Your task to perform on an android device: set default search engine in the chrome app Image 0: 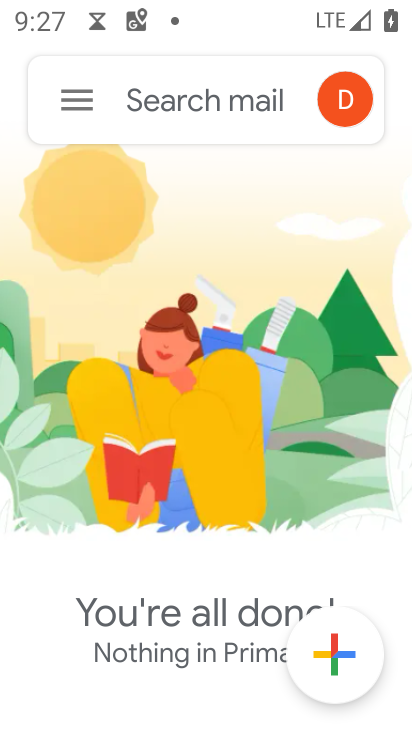
Step 0: drag from (345, 675) to (187, 144)
Your task to perform on an android device: set default search engine in the chrome app Image 1: 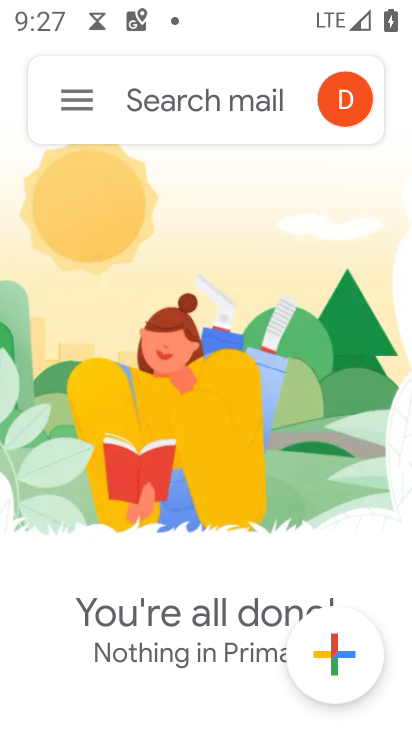
Step 1: press back button
Your task to perform on an android device: set default search engine in the chrome app Image 2: 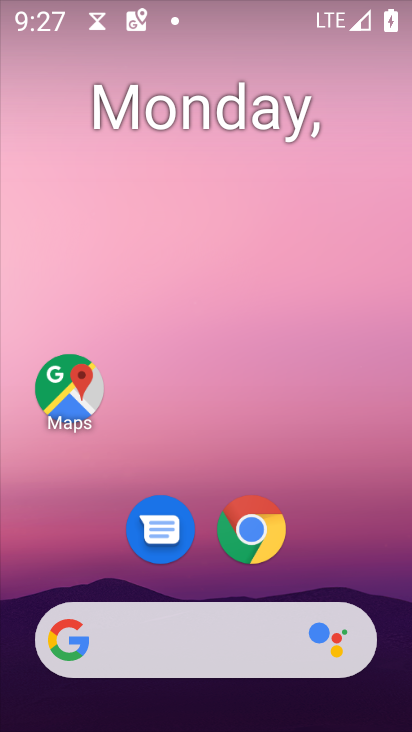
Step 2: drag from (306, 598) to (26, 18)
Your task to perform on an android device: set default search engine in the chrome app Image 3: 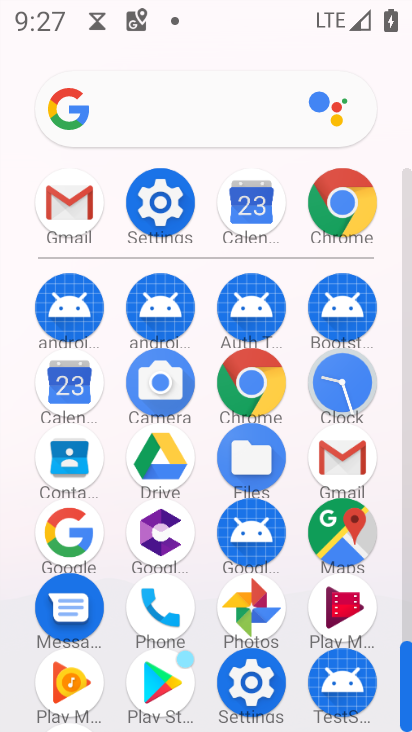
Step 3: click (341, 207)
Your task to perform on an android device: set default search engine in the chrome app Image 4: 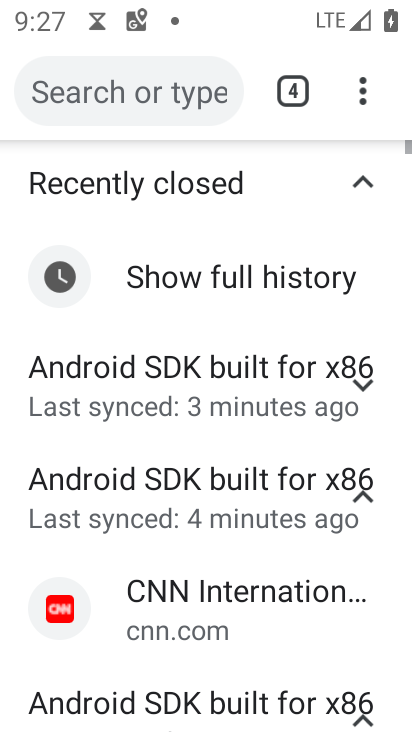
Step 4: drag from (362, 97) to (93, 555)
Your task to perform on an android device: set default search engine in the chrome app Image 5: 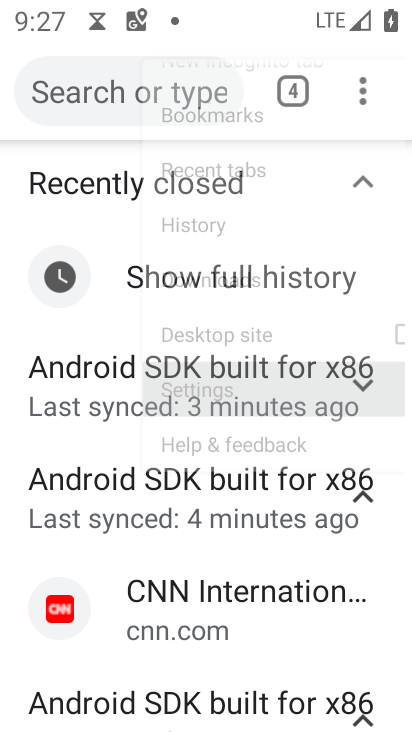
Step 5: click (104, 547)
Your task to perform on an android device: set default search engine in the chrome app Image 6: 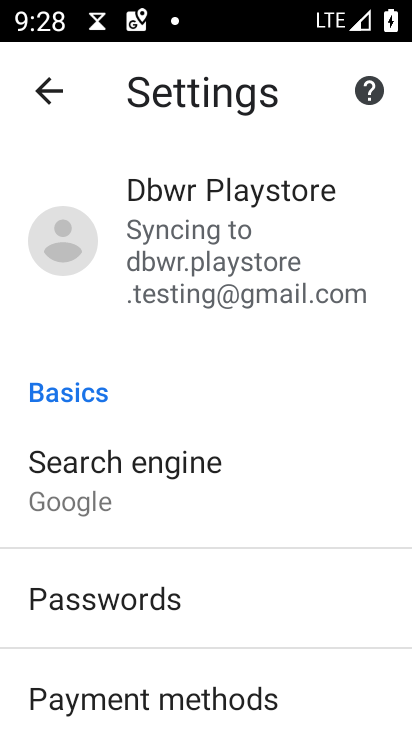
Step 6: drag from (199, 555) to (153, 201)
Your task to perform on an android device: set default search engine in the chrome app Image 7: 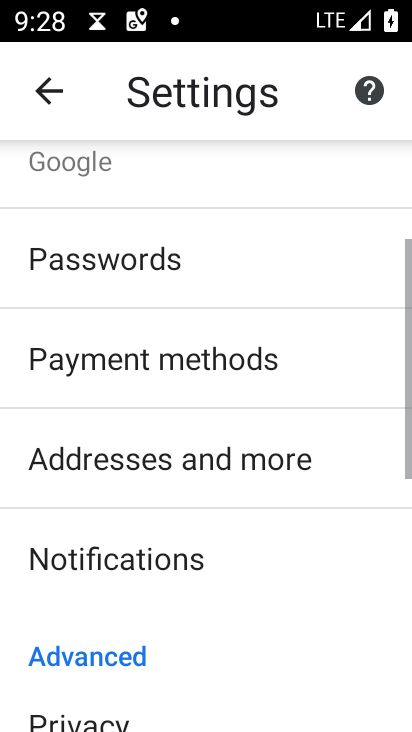
Step 7: drag from (166, 462) to (195, 222)
Your task to perform on an android device: set default search engine in the chrome app Image 8: 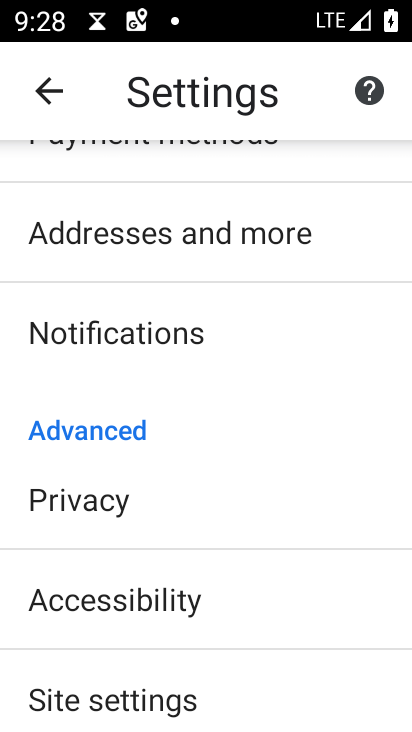
Step 8: drag from (155, 569) to (134, 333)
Your task to perform on an android device: set default search engine in the chrome app Image 9: 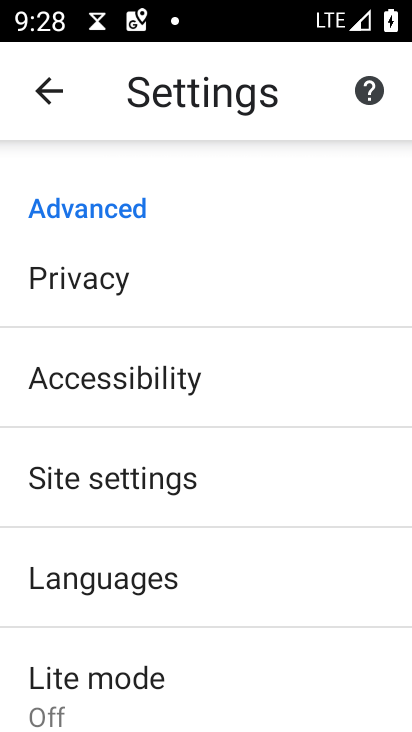
Step 9: click (107, 475)
Your task to perform on an android device: set default search engine in the chrome app Image 10: 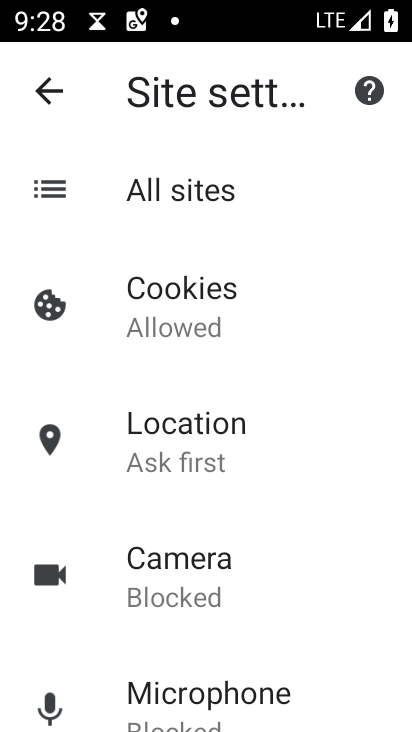
Step 10: drag from (212, 543) to (186, 125)
Your task to perform on an android device: set default search engine in the chrome app Image 11: 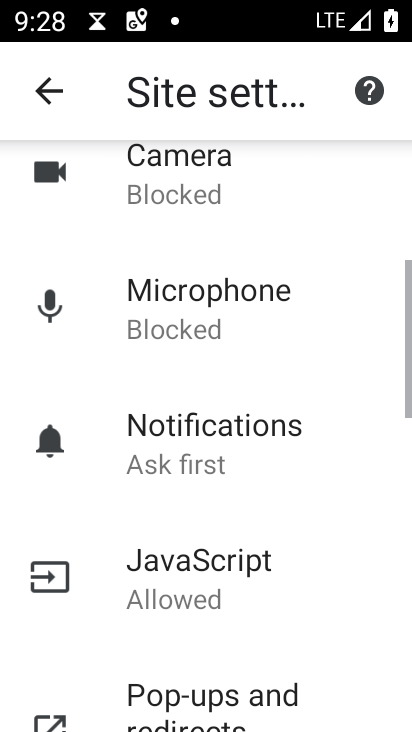
Step 11: drag from (250, 438) to (205, 174)
Your task to perform on an android device: set default search engine in the chrome app Image 12: 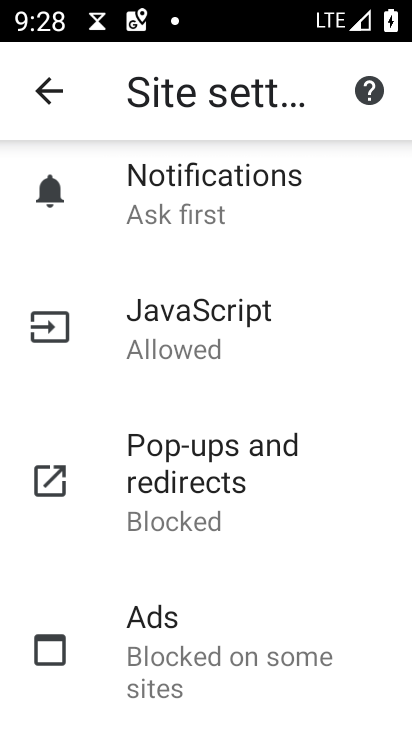
Step 12: drag from (164, 433) to (217, 573)
Your task to perform on an android device: set default search engine in the chrome app Image 13: 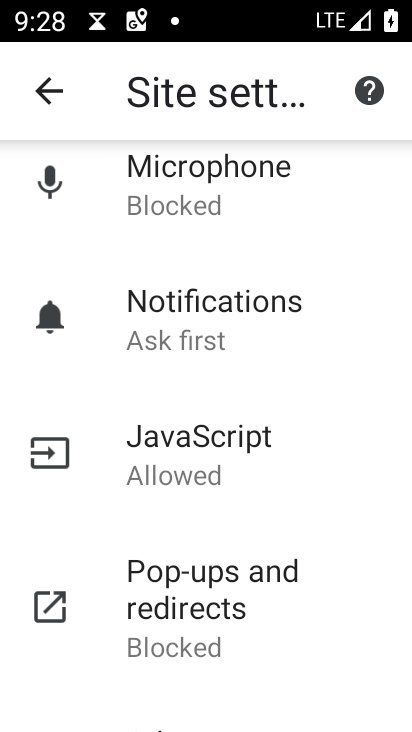
Step 13: click (29, 95)
Your task to perform on an android device: set default search engine in the chrome app Image 14: 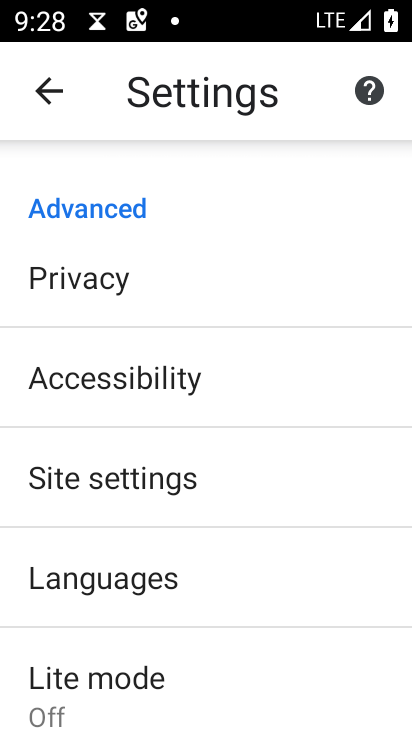
Step 14: drag from (127, 342) to (169, 611)
Your task to perform on an android device: set default search engine in the chrome app Image 15: 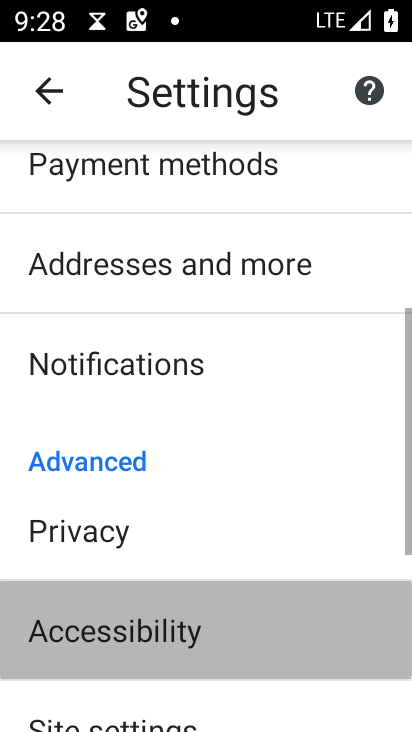
Step 15: drag from (123, 263) to (159, 499)
Your task to perform on an android device: set default search engine in the chrome app Image 16: 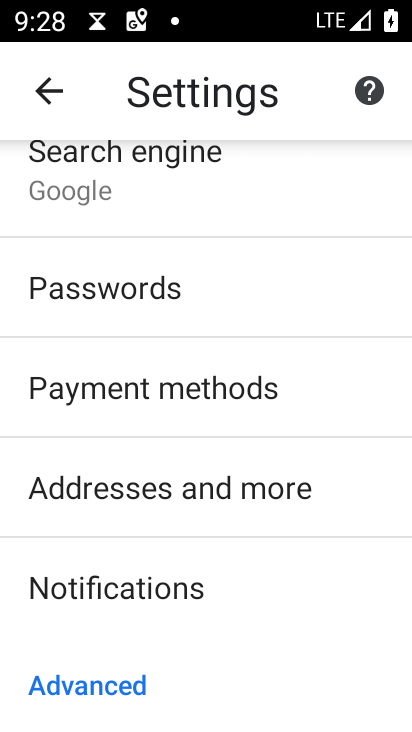
Step 16: drag from (108, 294) to (154, 535)
Your task to perform on an android device: set default search engine in the chrome app Image 17: 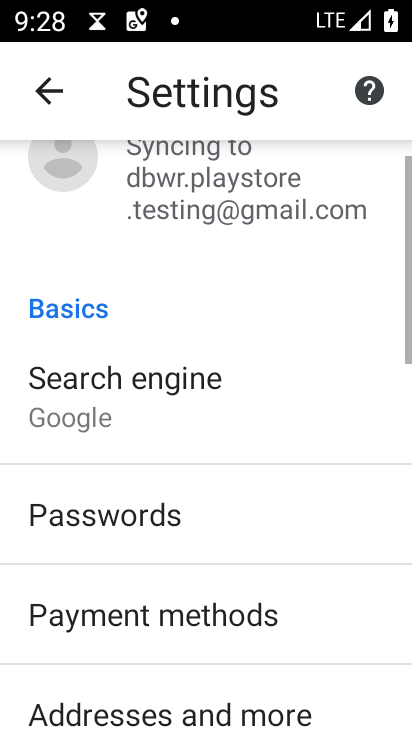
Step 17: drag from (185, 403) to (206, 551)
Your task to perform on an android device: set default search engine in the chrome app Image 18: 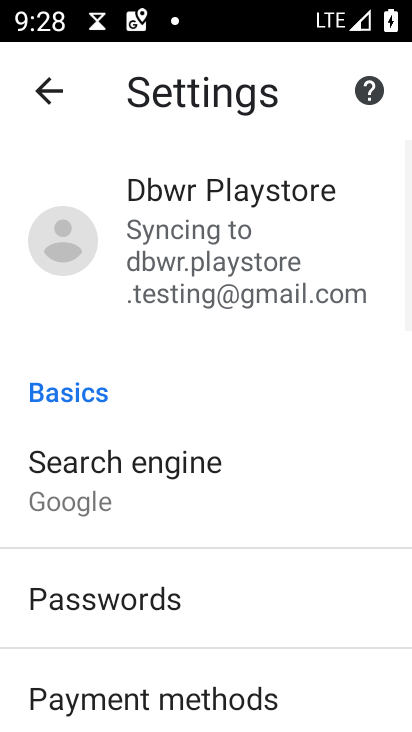
Step 18: click (73, 390)
Your task to perform on an android device: set default search engine in the chrome app Image 19: 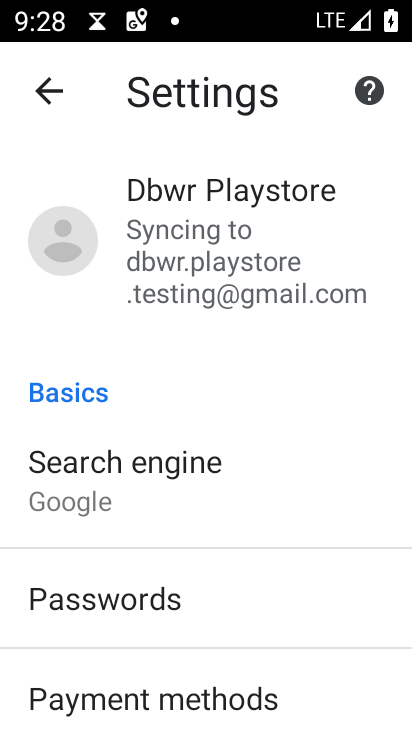
Step 19: click (86, 488)
Your task to perform on an android device: set default search engine in the chrome app Image 20: 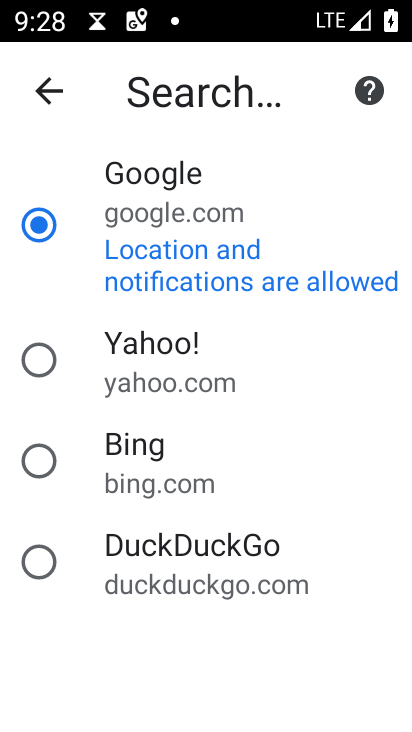
Step 20: click (39, 371)
Your task to perform on an android device: set default search engine in the chrome app Image 21: 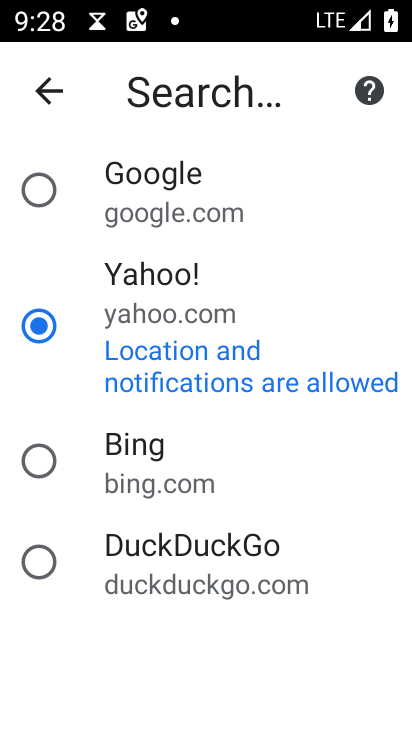
Step 21: click (43, 192)
Your task to perform on an android device: set default search engine in the chrome app Image 22: 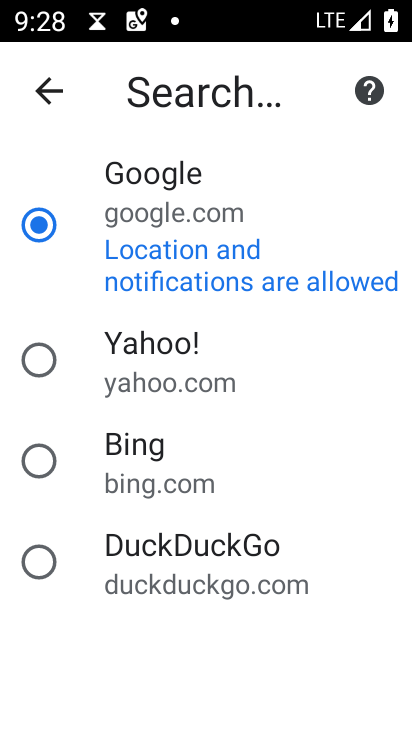
Step 22: task complete